Your task to perform on an android device: Open wifi settings Image 0: 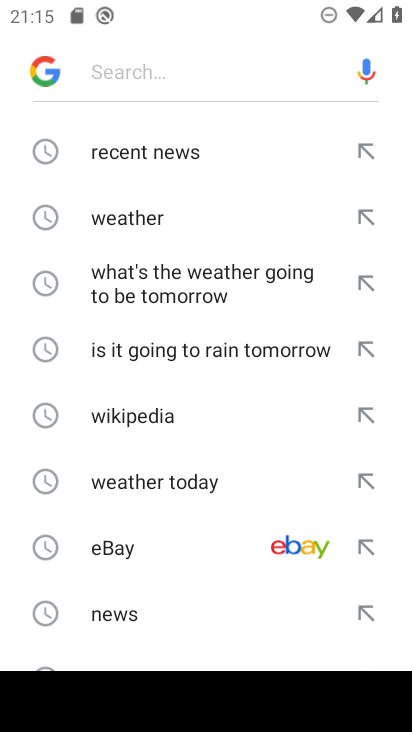
Step 0: press home button
Your task to perform on an android device: Open wifi settings Image 1: 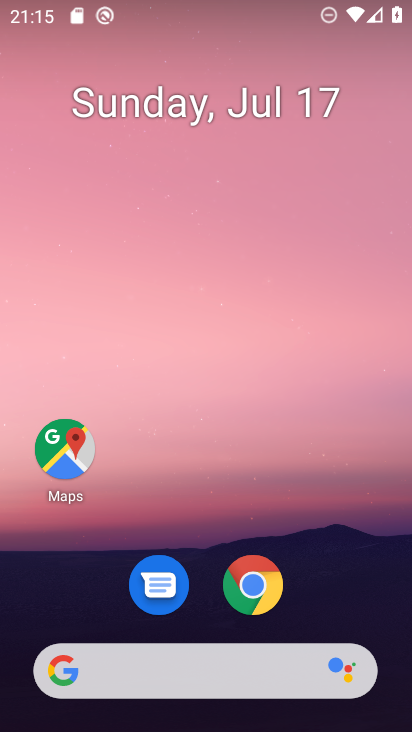
Step 1: drag from (166, 669) to (284, 80)
Your task to perform on an android device: Open wifi settings Image 2: 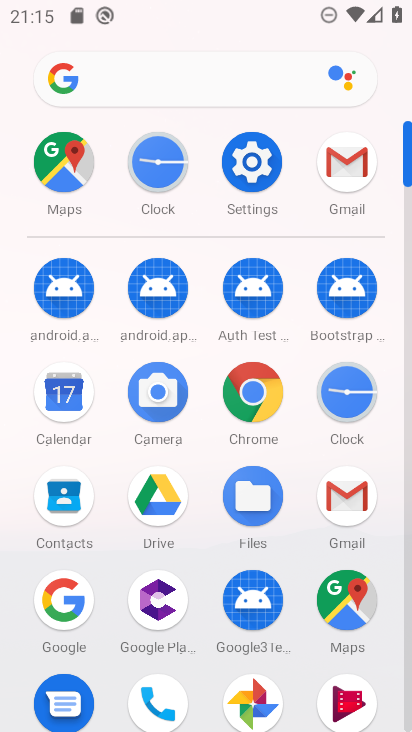
Step 2: click (258, 175)
Your task to perform on an android device: Open wifi settings Image 3: 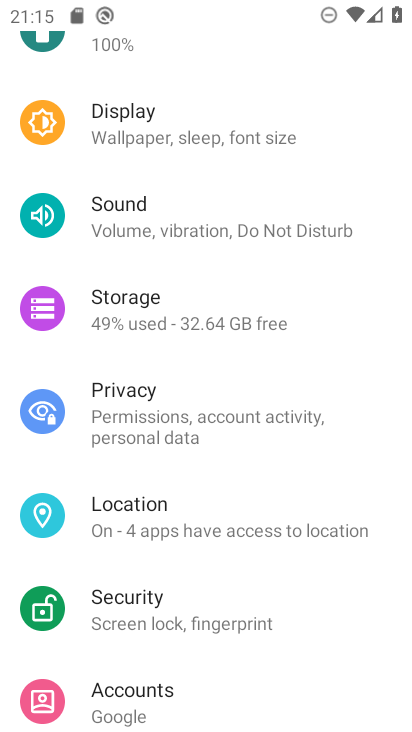
Step 3: drag from (311, 86) to (297, 584)
Your task to perform on an android device: Open wifi settings Image 4: 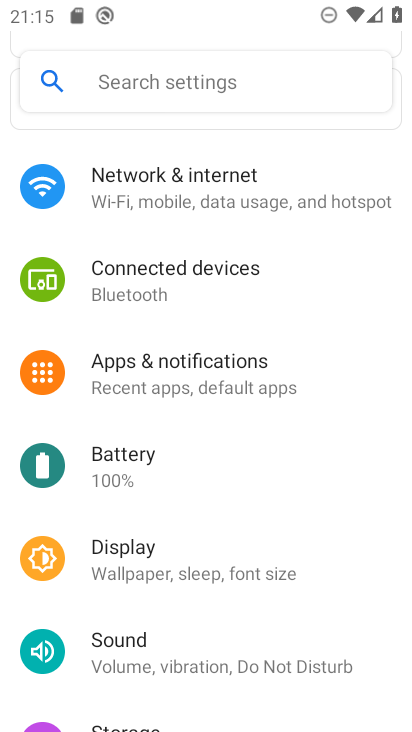
Step 4: click (141, 188)
Your task to perform on an android device: Open wifi settings Image 5: 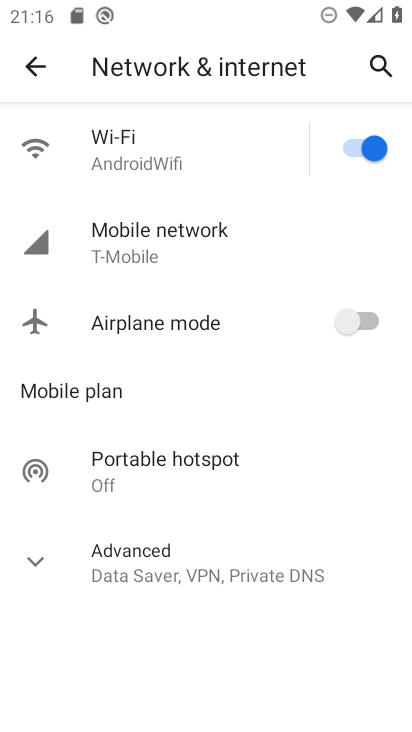
Step 5: click (127, 156)
Your task to perform on an android device: Open wifi settings Image 6: 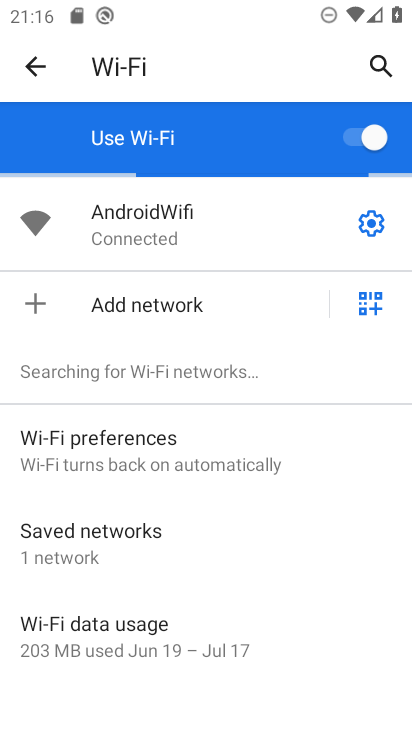
Step 6: task complete